Your task to perform on an android device: turn on notifications settings in the gmail app Image 0: 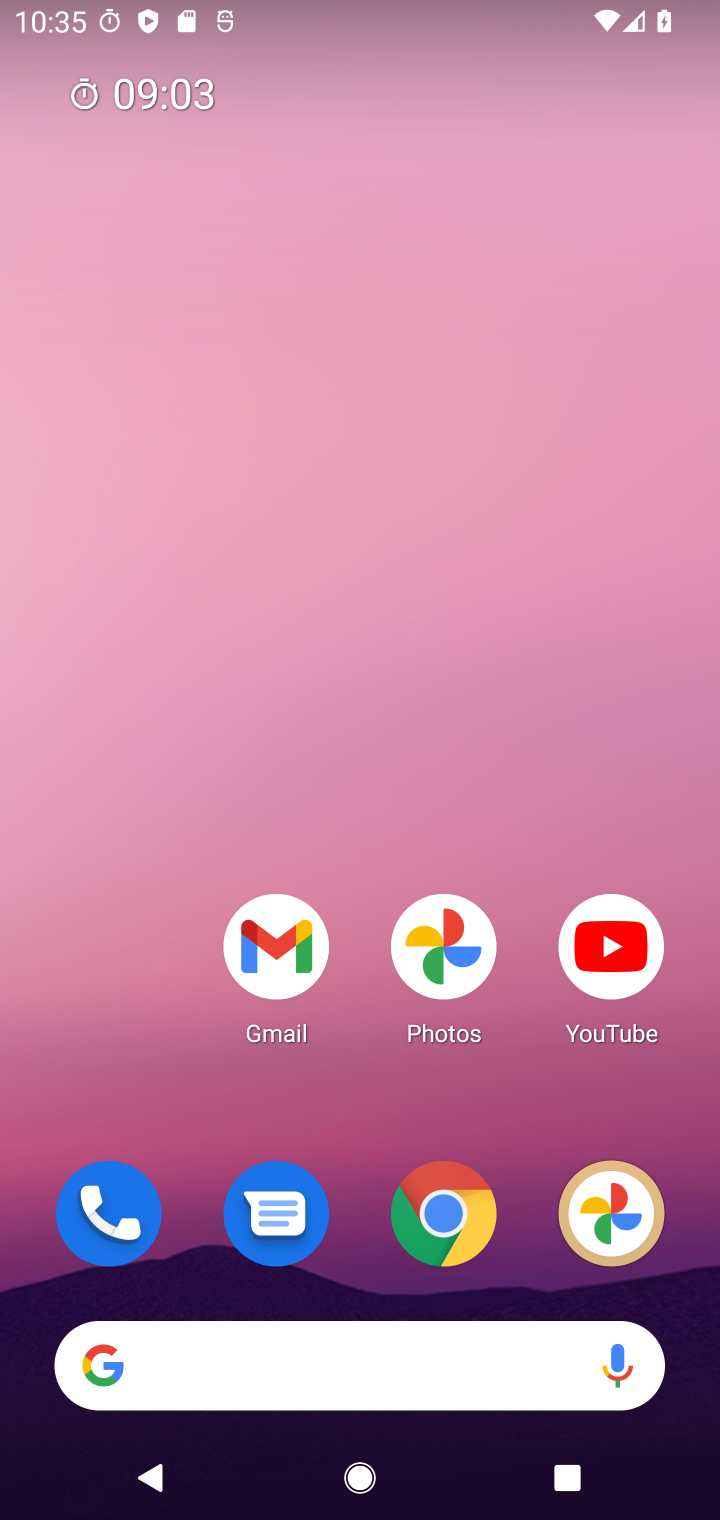
Step 0: drag from (408, 1040) to (394, 321)
Your task to perform on an android device: turn on notifications settings in the gmail app Image 1: 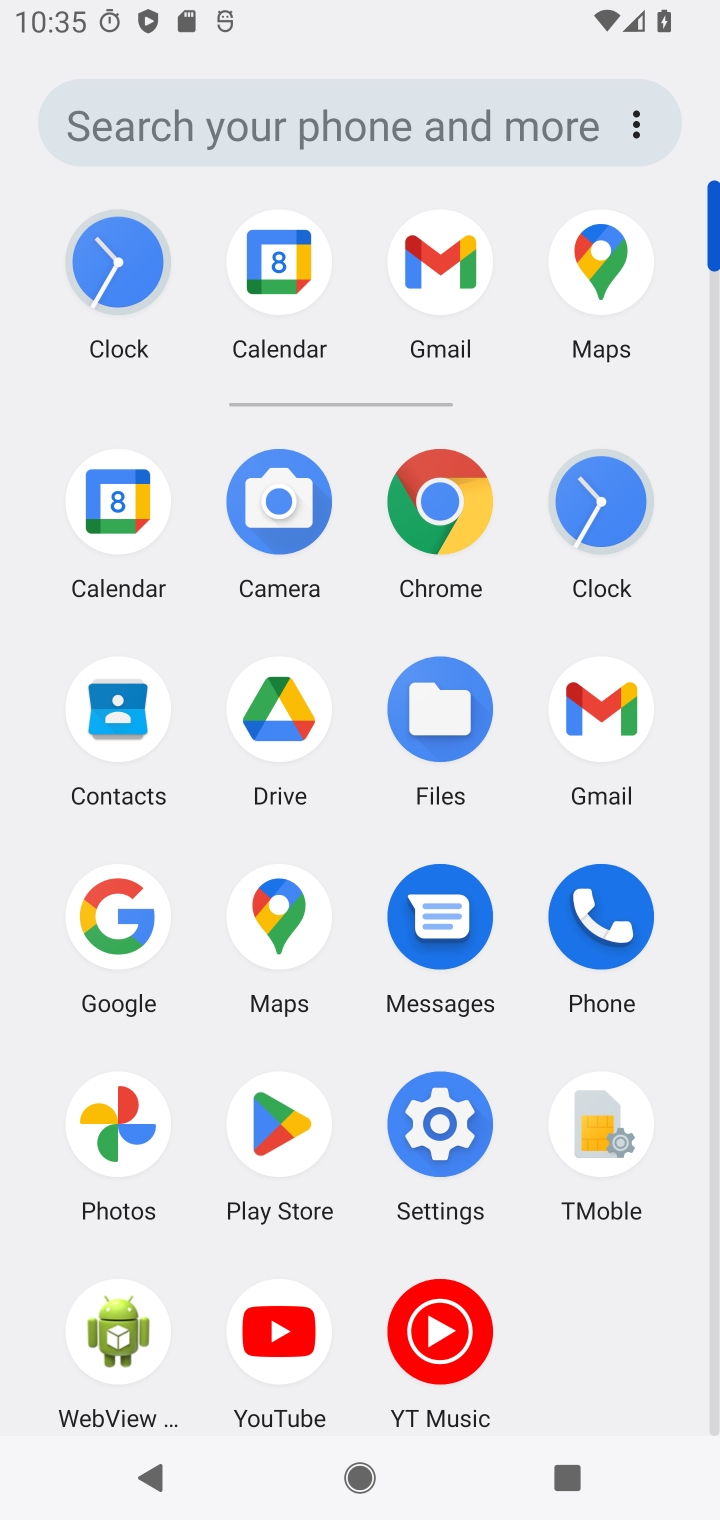
Step 1: click (609, 756)
Your task to perform on an android device: turn on notifications settings in the gmail app Image 2: 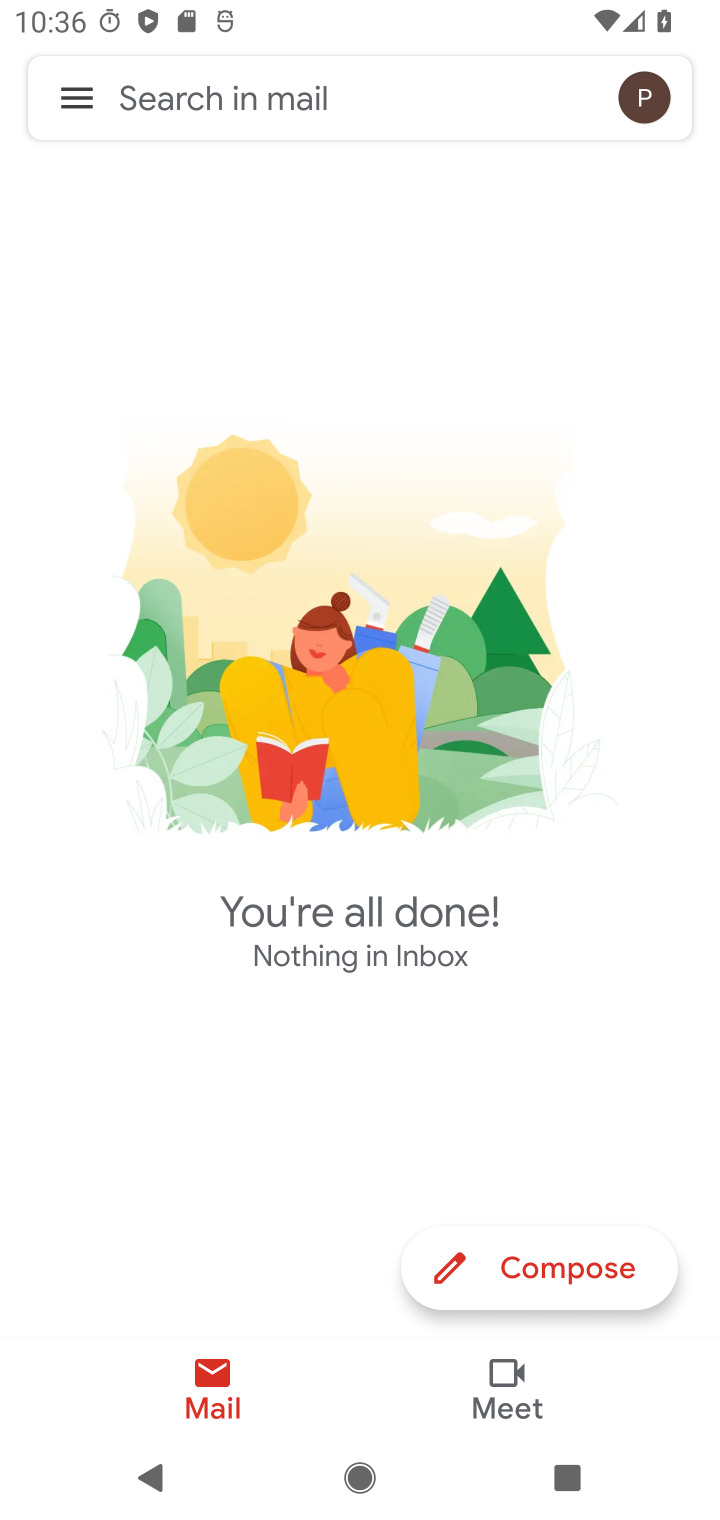
Step 2: click (70, 107)
Your task to perform on an android device: turn on notifications settings in the gmail app Image 3: 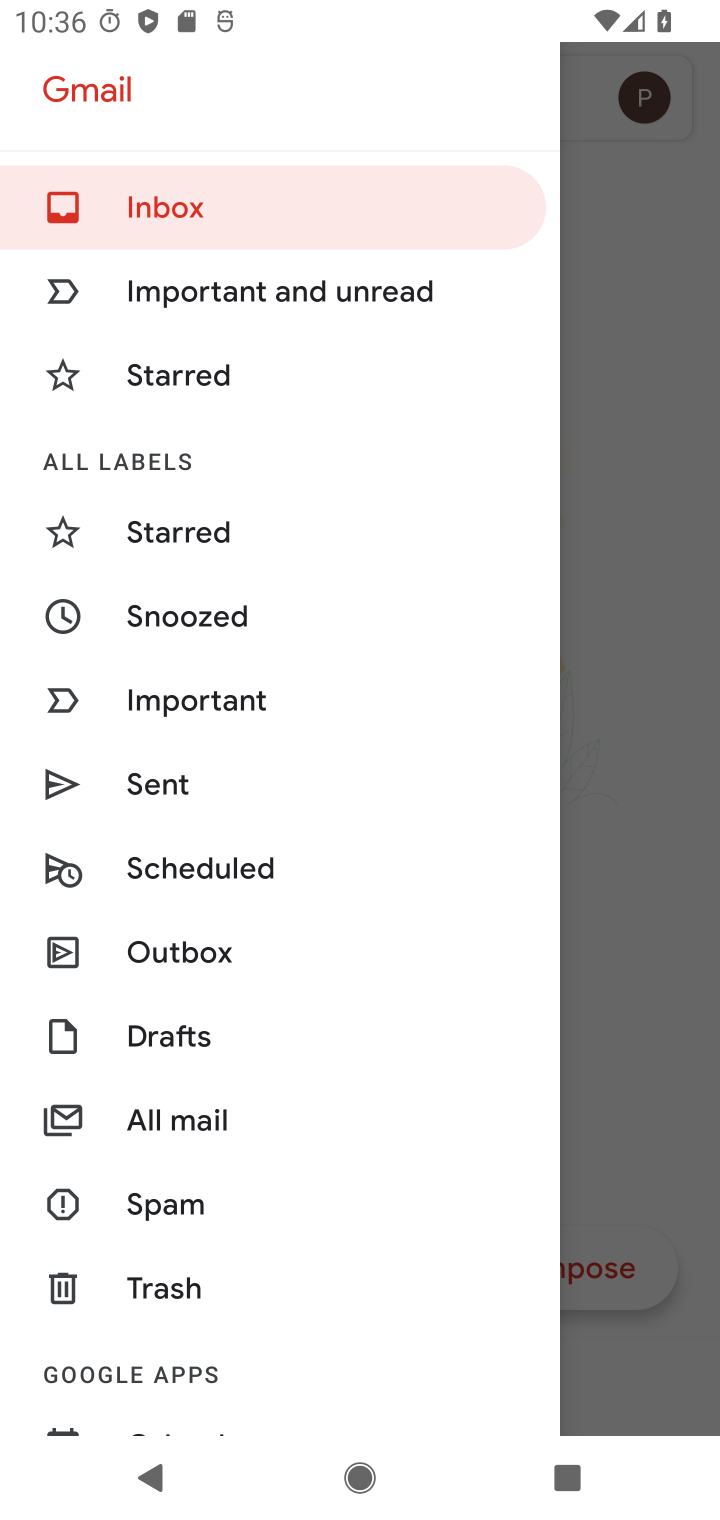
Step 3: drag from (241, 1206) to (356, 457)
Your task to perform on an android device: turn on notifications settings in the gmail app Image 4: 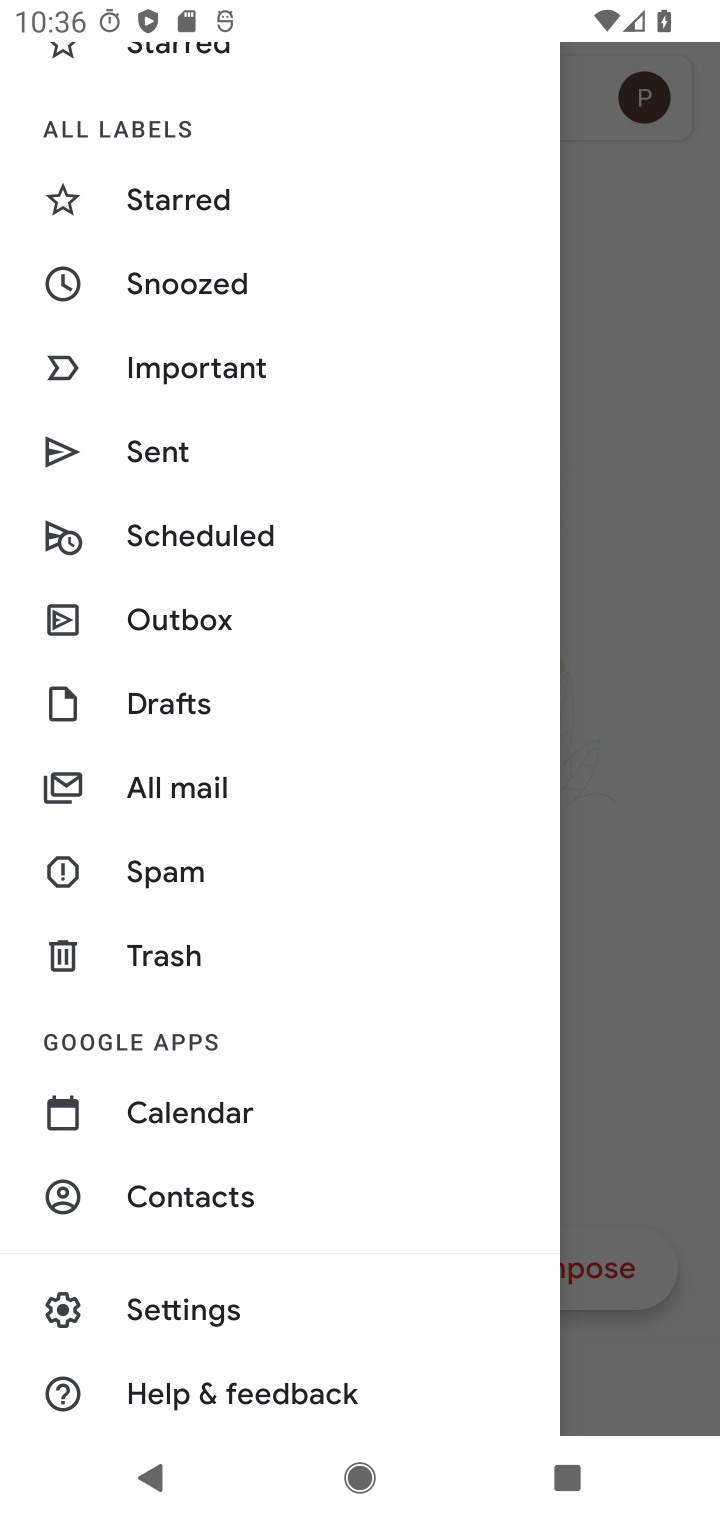
Step 4: click (239, 1322)
Your task to perform on an android device: turn on notifications settings in the gmail app Image 5: 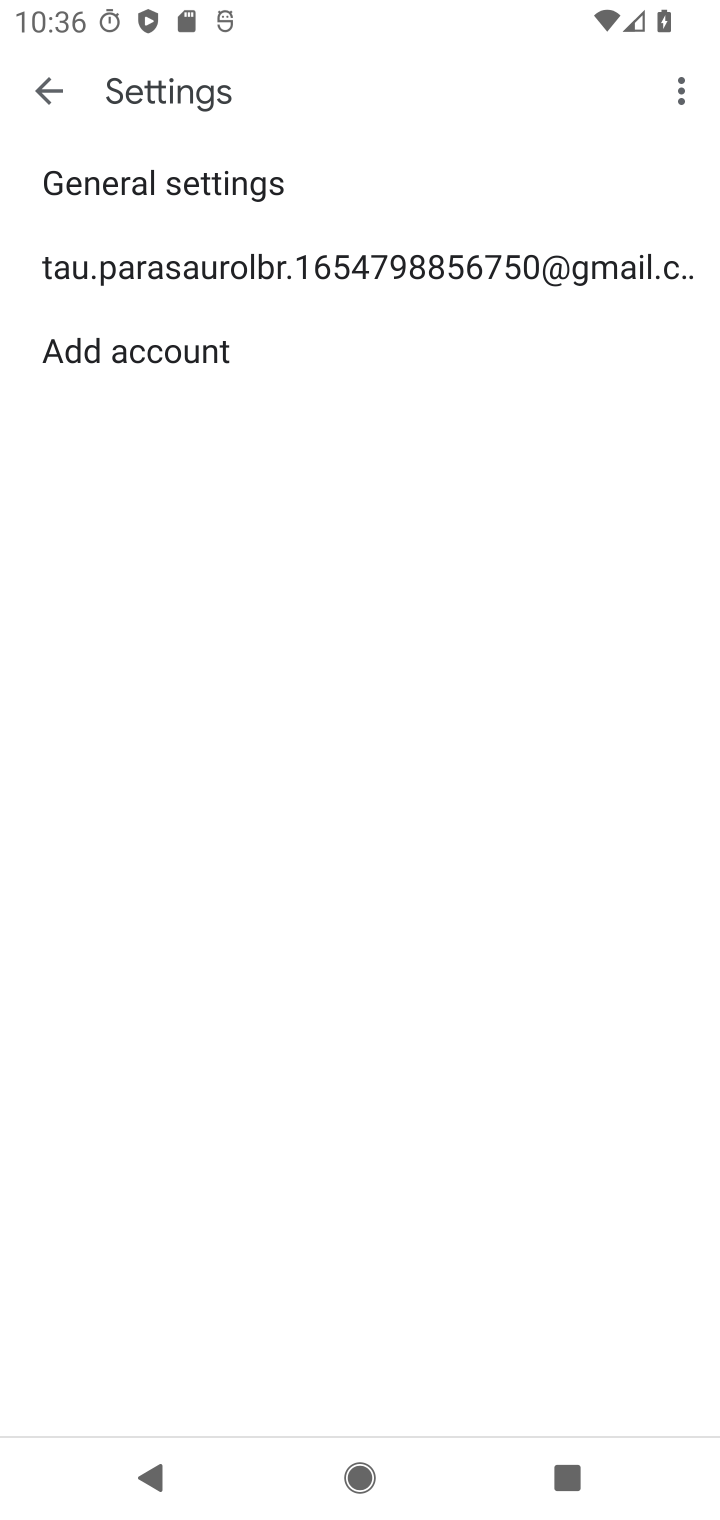
Step 5: click (415, 257)
Your task to perform on an android device: turn on notifications settings in the gmail app Image 6: 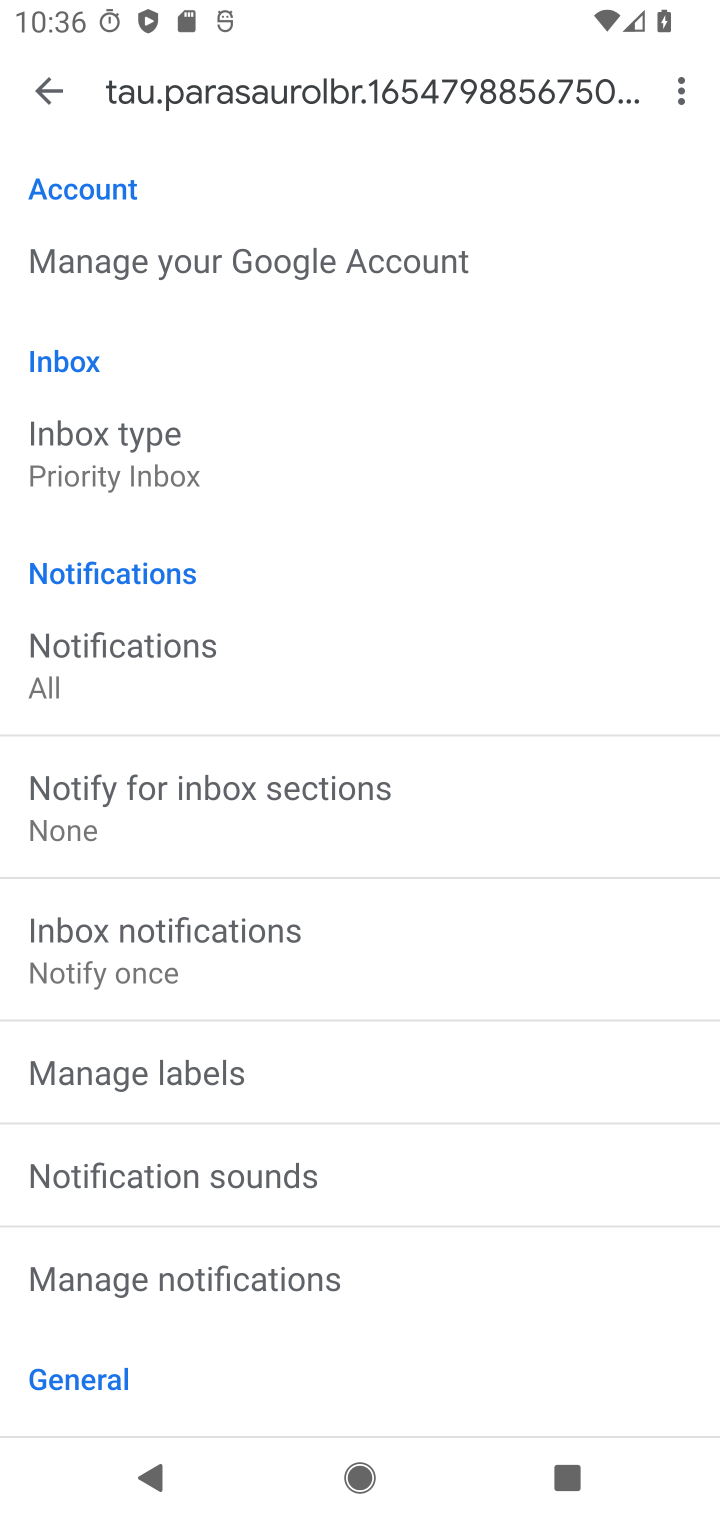
Step 6: click (342, 1275)
Your task to perform on an android device: turn on notifications settings in the gmail app Image 7: 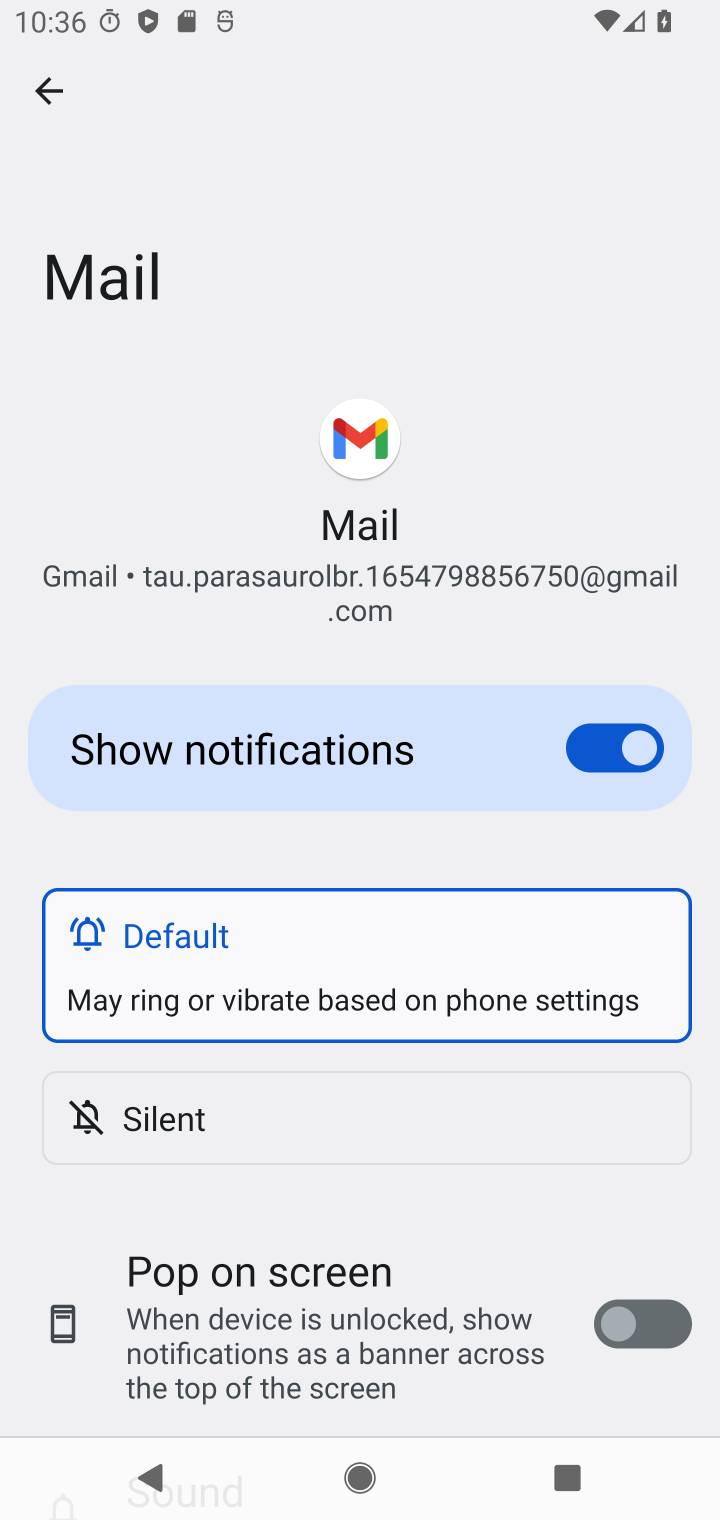
Step 7: task complete